Your task to perform on an android device: check android version Image 0: 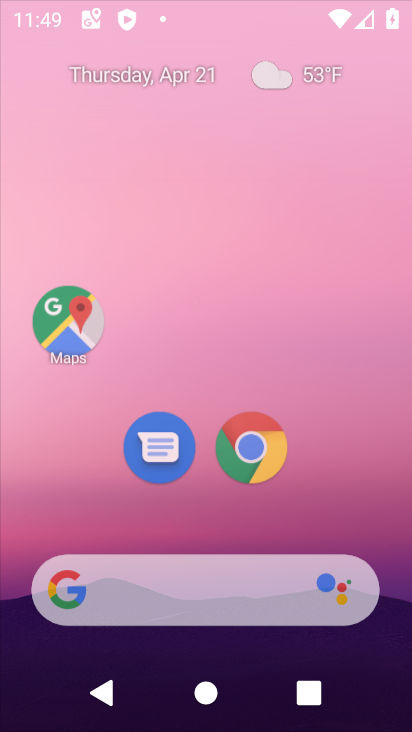
Step 0: drag from (346, 107) to (342, 38)
Your task to perform on an android device: check android version Image 1: 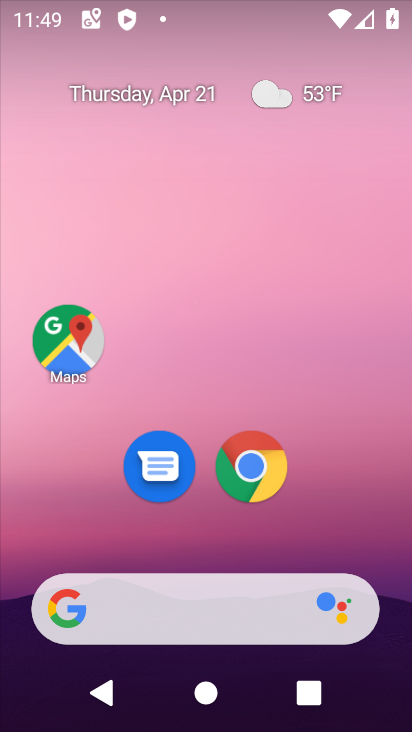
Step 1: drag from (373, 593) to (262, 33)
Your task to perform on an android device: check android version Image 2: 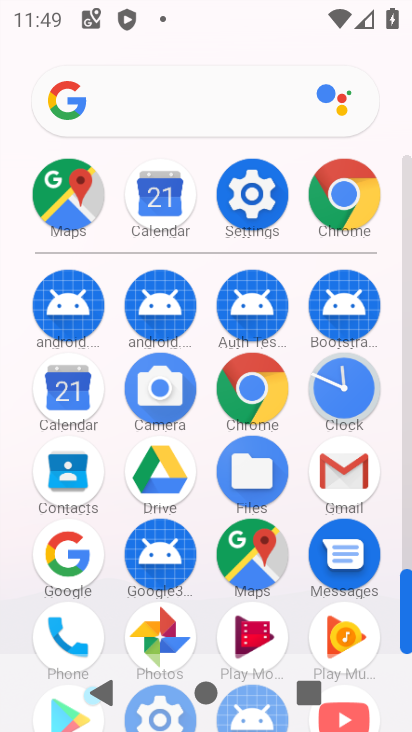
Step 2: click (341, 380)
Your task to perform on an android device: check android version Image 3: 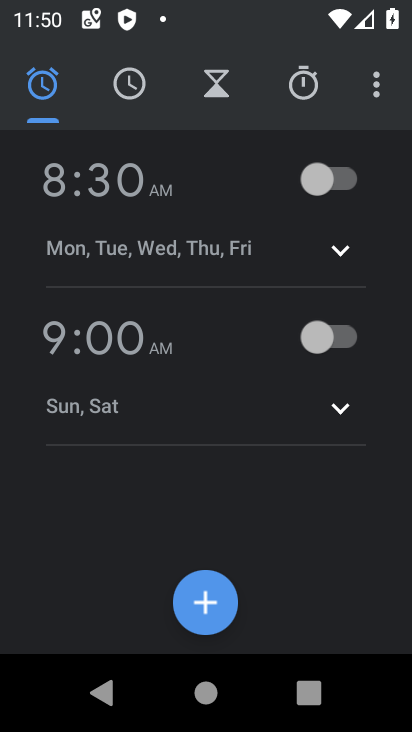
Step 3: press back button
Your task to perform on an android device: check android version Image 4: 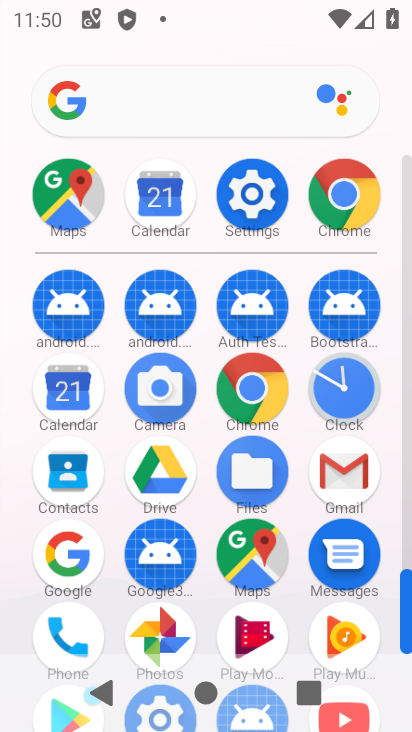
Step 4: click (252, 190)
Your task to perform on an android device: check android version Image 5: 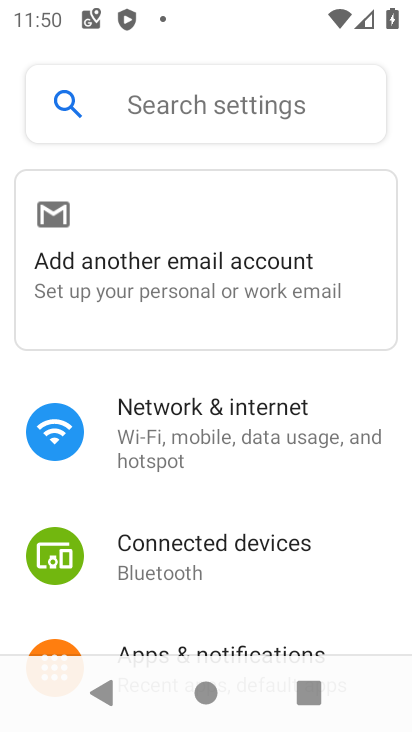
Step 5: drag from (341, 492) to (334, 225)
Your task to perform on an android device: check android version Image 6: 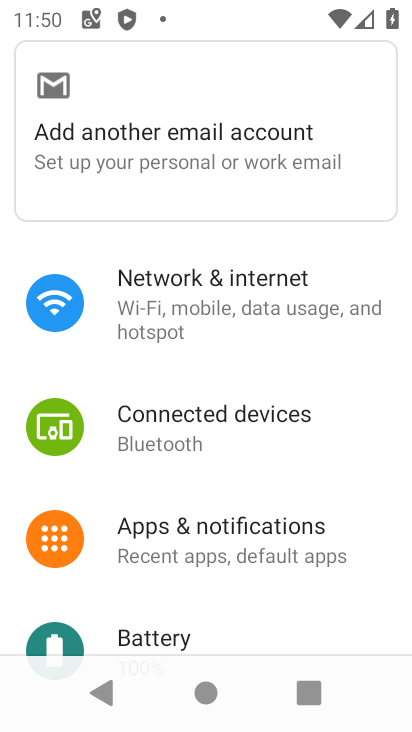
Step 6: drag from (311, 516) to (293, 144)
Your task to perform on an android device: check android version Image 7: 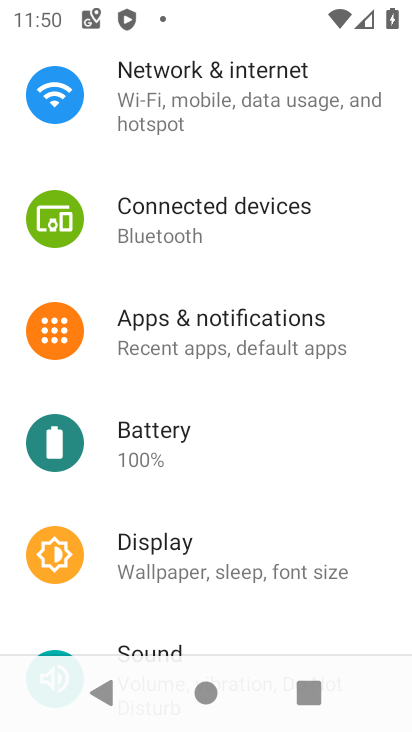
Step 7: drag from (280, 530) to (296, 243)
Your task to perform on an android device: check android version Image 8: 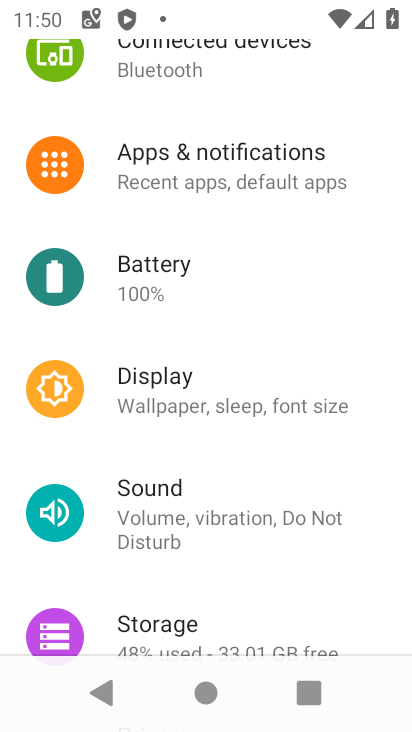
Step 8: drag from (286, 537) to (273, 255)
Your task to perform on an android device: check android version Image 9: 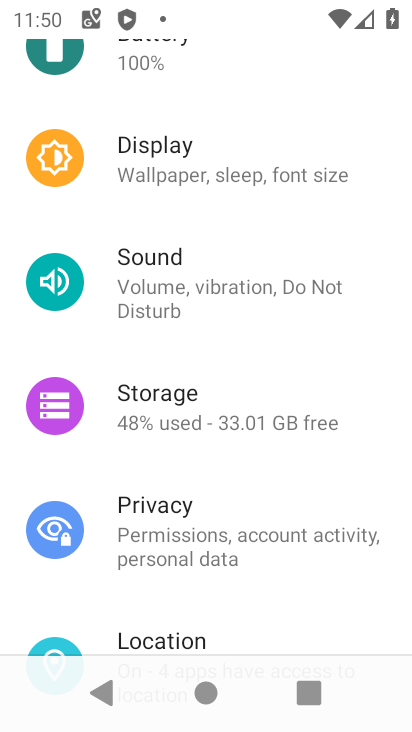
Step 9: drag from (257, 555) to (263, 238)
Your task to perform on an android device: check android version Image 10: 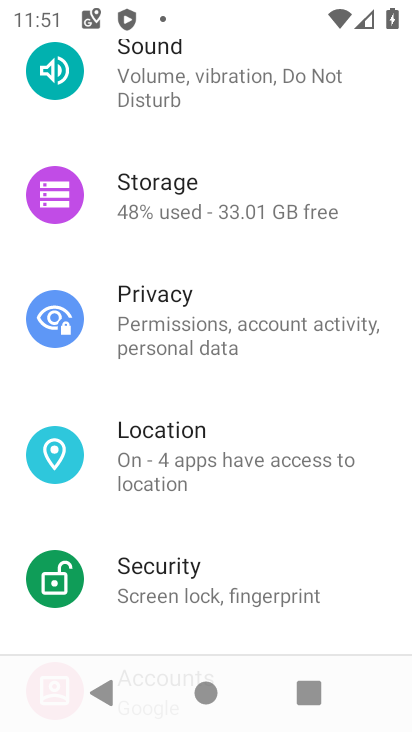
Step 10: drag from (252, 538) to (259, 235)
Your task to perform on an android device: check android version Image 11: 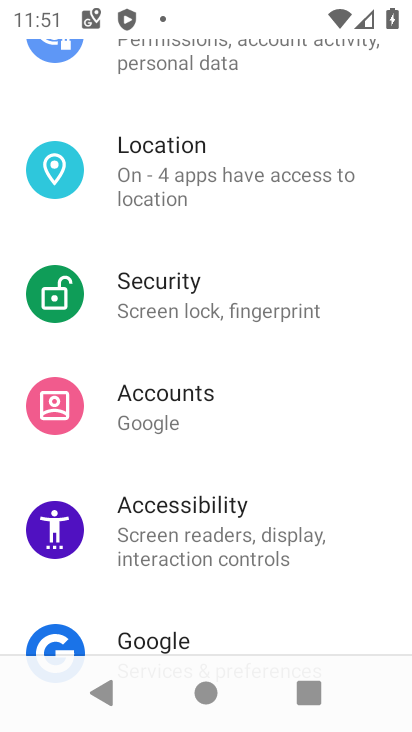
Step 11: drag from (255, 539) to (263, 158)
Your task to perform on an android device: check android version Image 12: 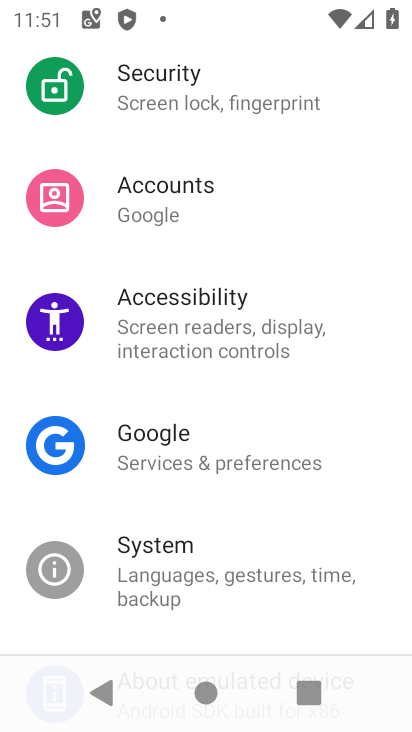
Step 12: drag from (254, 535) to (258, 190)
Your task to perform on an android device: check android version Image 13: 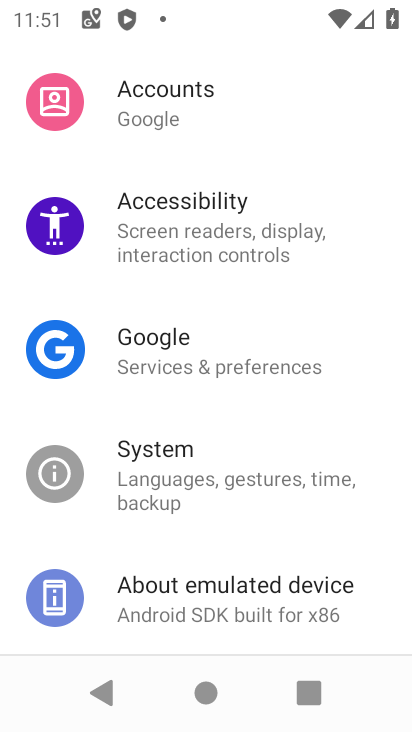
Step 13: click (228, 597)
Your task to perform on an android device: check android version Image 14: 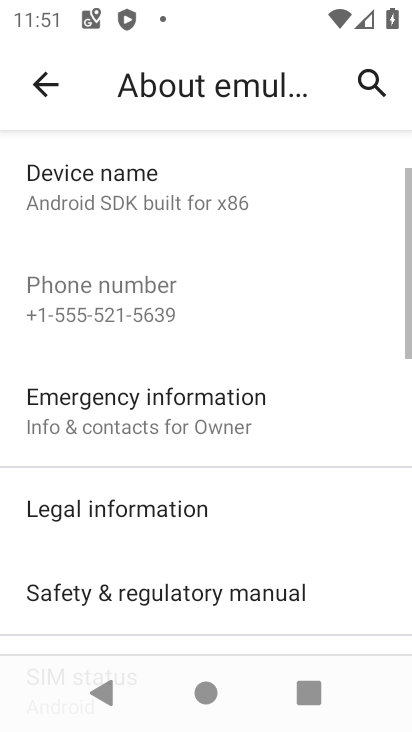
Step 14: task complete